Your task to perform on an android device: What's the weather today? Image 0: 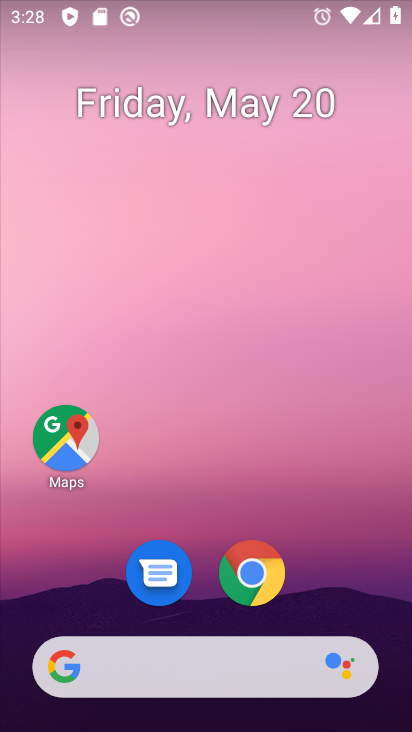
Step 0: drag from (198, 610) to (193, 8)
Your task to perform on an android device: What's the weather today? Image 1: 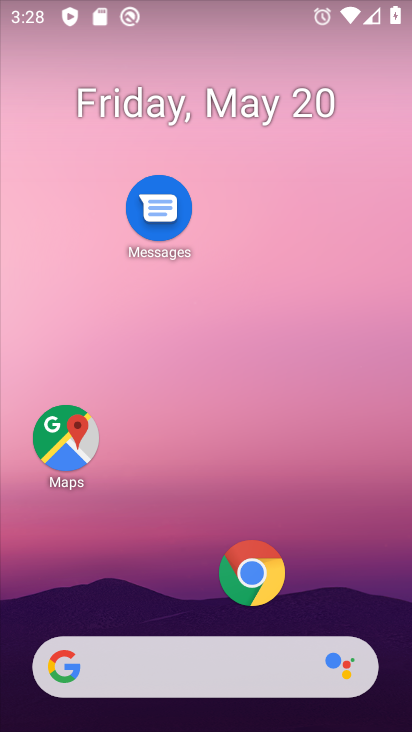
Step 1: click (205, 677)
Your task to perform on an android device: What's the weather today? Image 2: 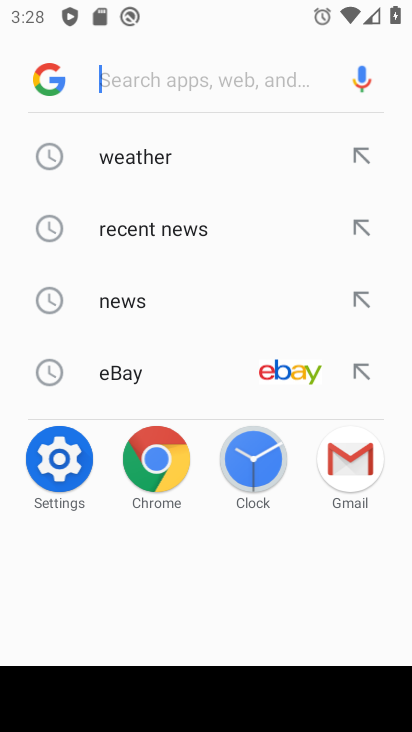
Step 2: click (145, 140)
Your task to perform on an android device: What's the weather today? Image 3: 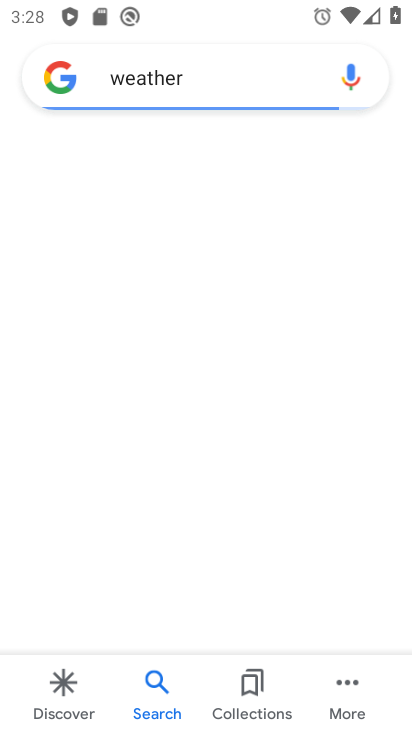
Step 3: task complete